Your task to perform on an android device: Search for Mexican restaurants on Maps Image 0: 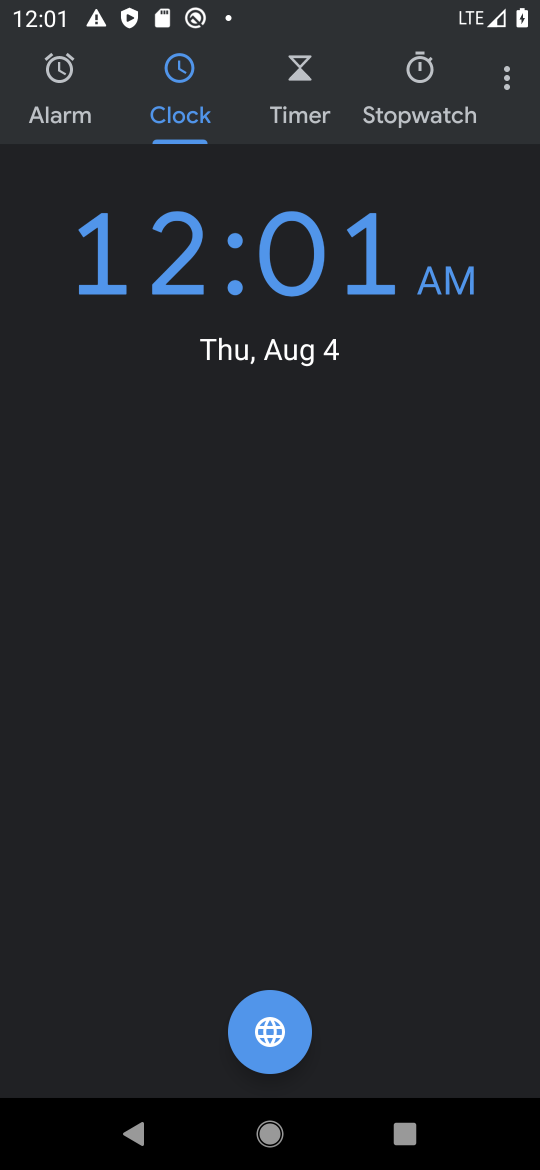
Step 0: press home button
Your task to perform on an android device: Search for Mexican restaurants on Maps Image 1: 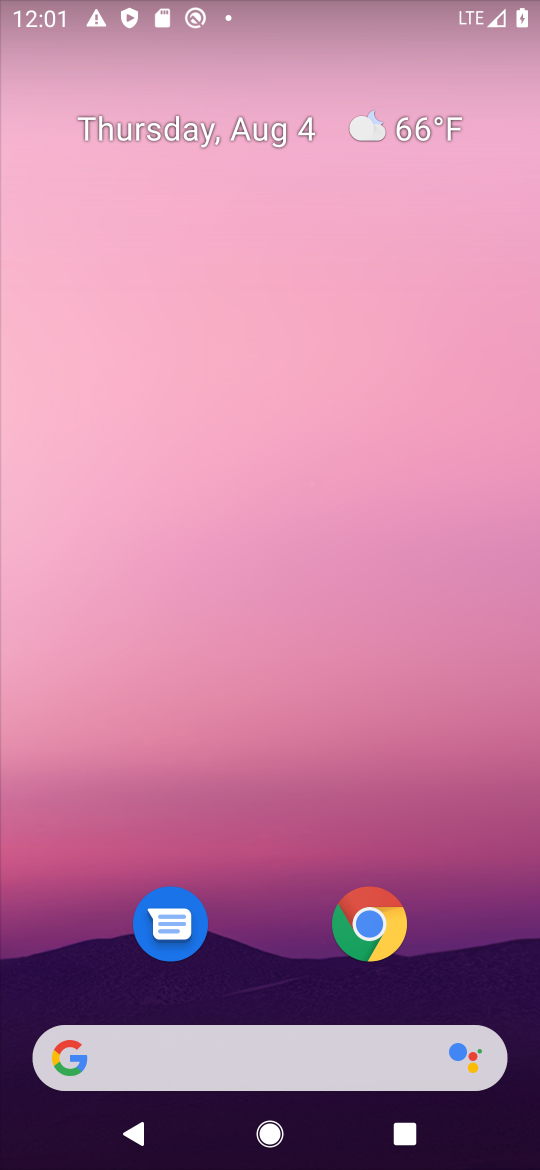
Step 1: drag from (18, 1102) to (250, 239)
Your task to perform on an android device: Search for Mexican restaurants on Maps Image 2: 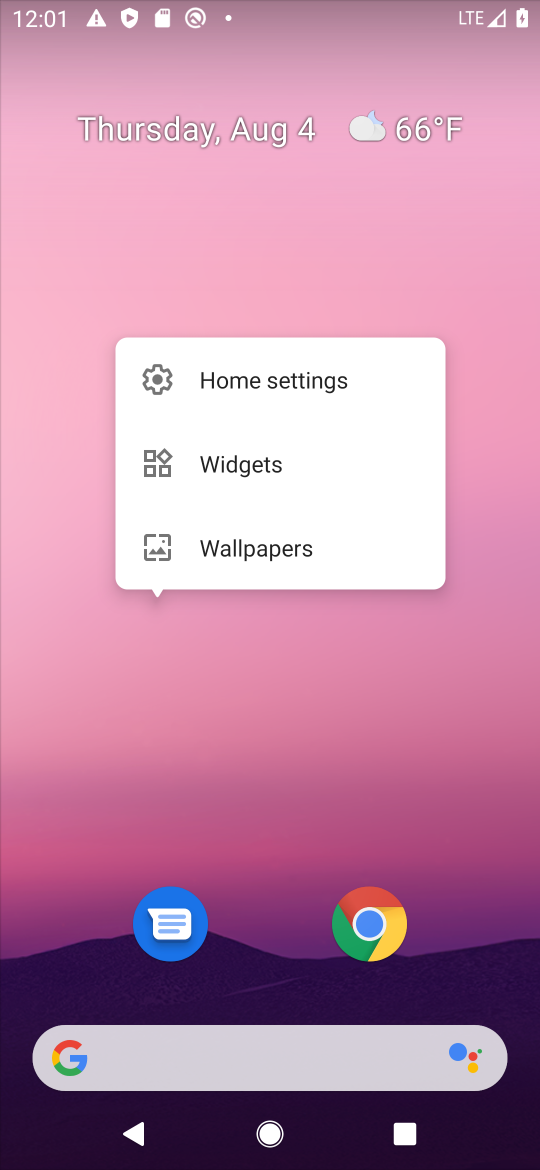
Step 2: drag from (103, 1007) to (342, 35)
Your task to perform on an android device: Search for Mexican restaurants on Maps Image 3: 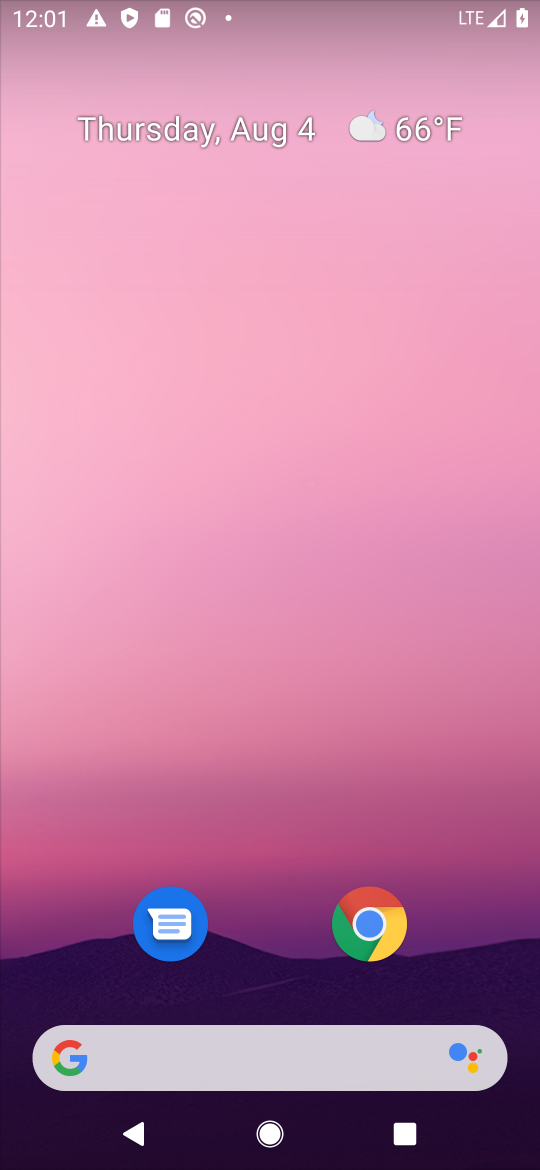
Step 3: drag from (58, 1125) to (411, 19)
Your task to perform on an android device: Search for Mexican restaurants on Maps Image 4: 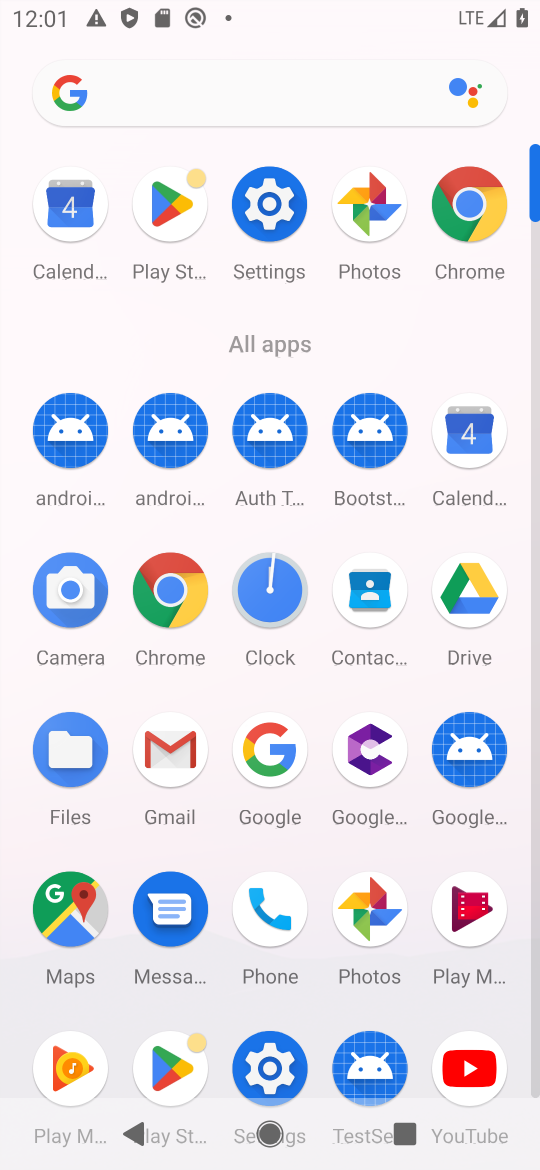
Step 4: click (47, 905)
Your task to perform on an android device: Search for Mexican restaurants on Maps Image 5: 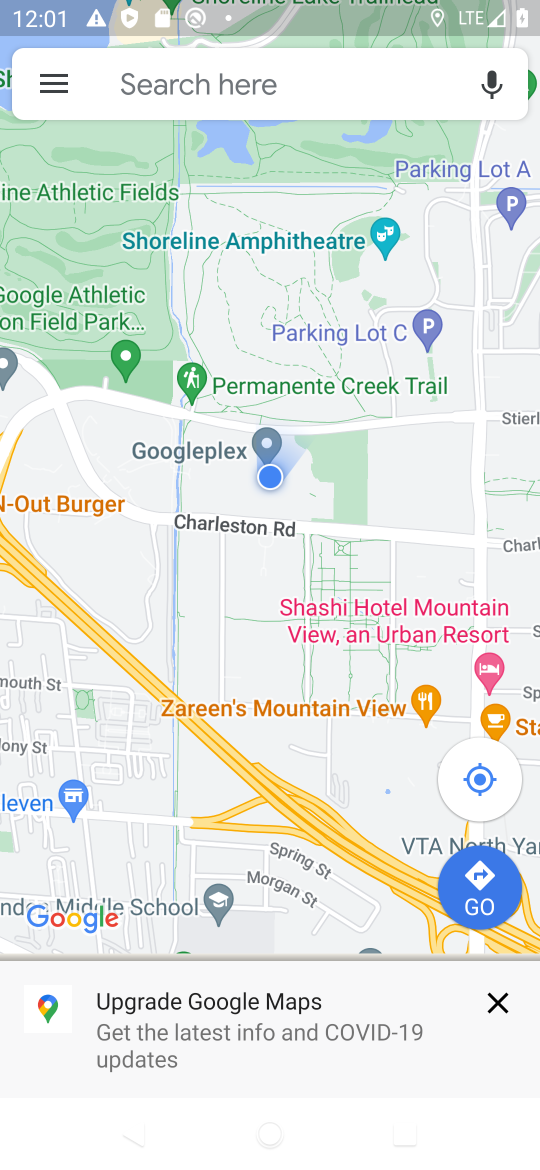
Step 5: click (207, 105)
Your task to perform on an android device: Search for Mexican restaurants on Maps Image 6: 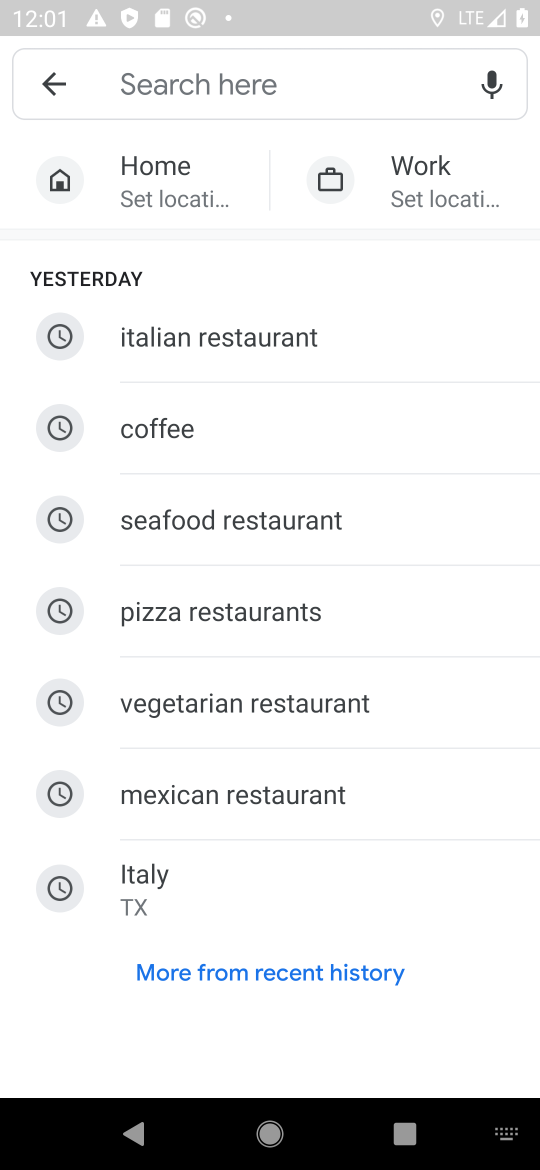
Step 6: click (171, 75)
Your task to perform on an android device: Search for Mexican restaurants on Maps Image 7: 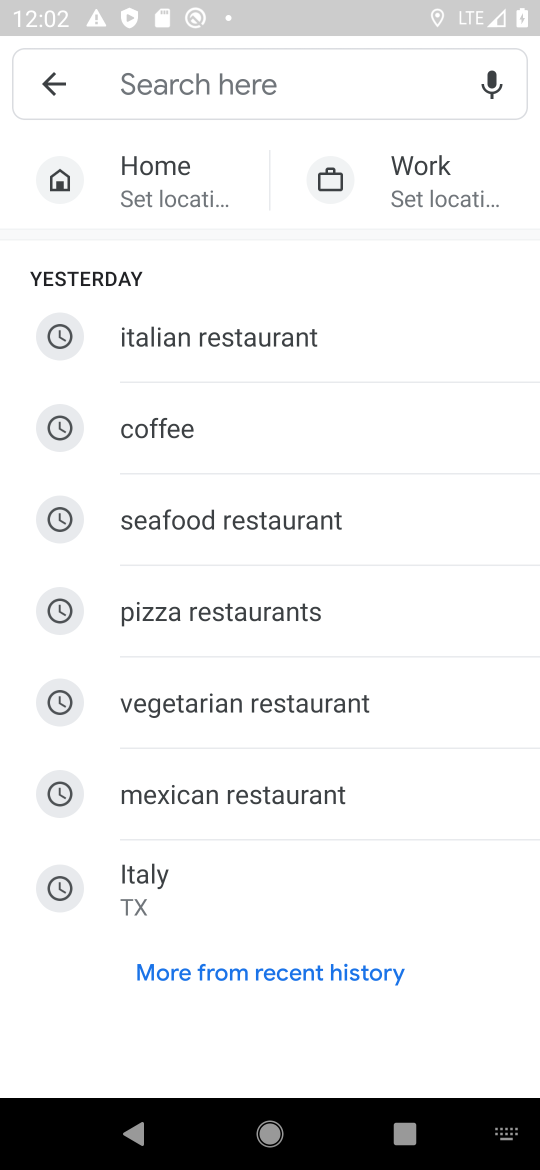
Step 7: click (157, 784)
Your task to perform on an android device: Search for Mexican restaurants on Maps Image 8: 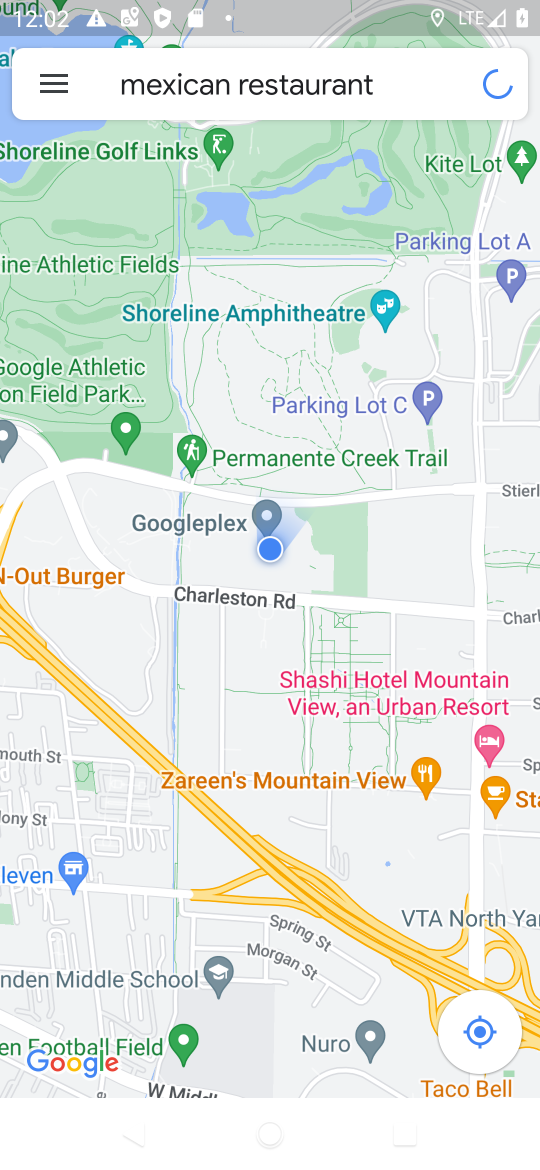
Step 8: task complete